Your task to perform on an android device: Search for seafood restaurants on Google Maps Image 0: 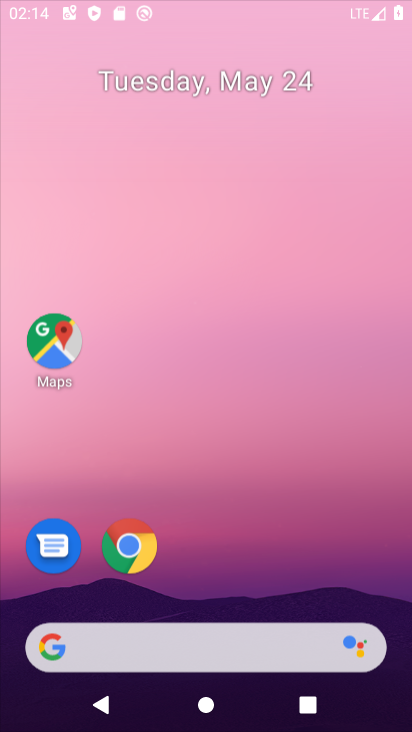
Step 0: drag from (231, 543) to (335, 21)
Your task to perform on an android device: Search for seafood restaurants on Google Maps Image 1: 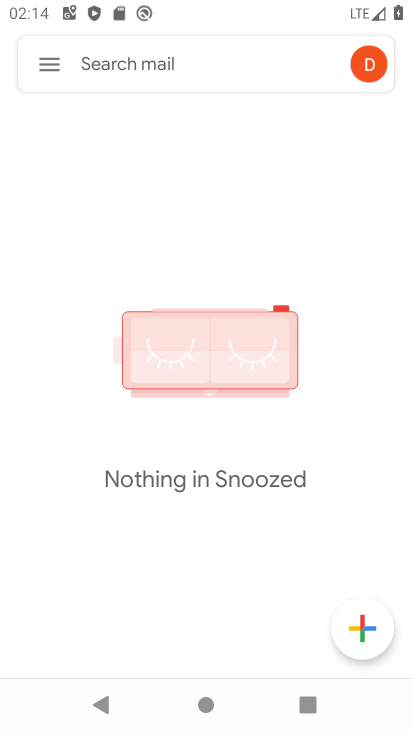
Step 1: press home button
Your task to perform on an android device: Search for seafood restaurants on Google Maps Image 2: 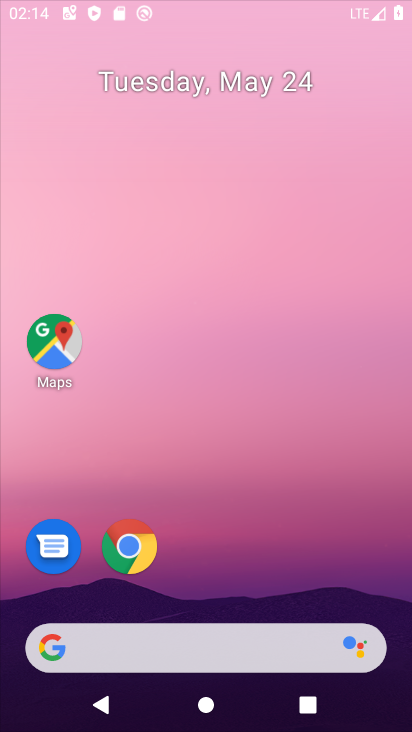
Step 2: drag from (212, 537) to (348, 23)
Your task to perform on an android device: Search for seafood restaurants on Google Maps Image 3: 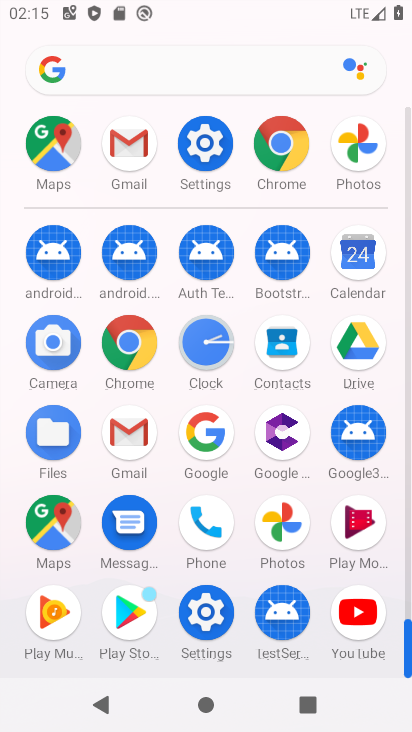
Step 3: click (57, 506)
Your task to perform on an android device: Search for seafood restaurants on Google Maps Image 4: 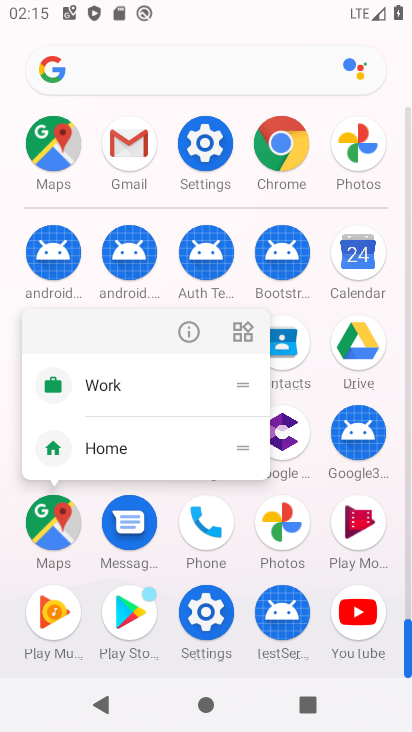
Step 4: click (179, 324)
Your task to perform on an android device: Search for seafood restaurants on Google Maps Image 5: 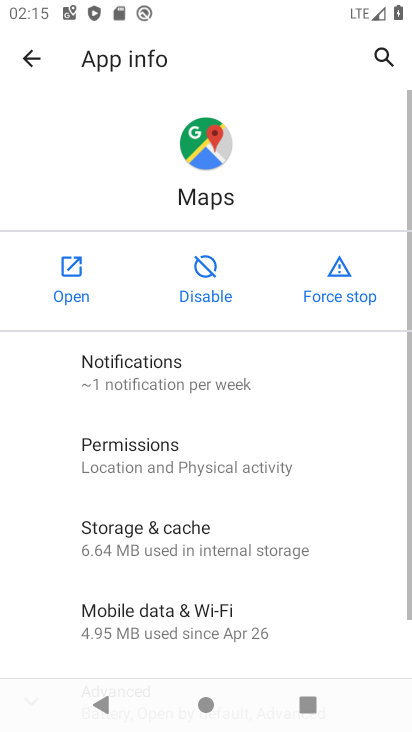
Step 5: click (93, 290)
Your task to perform on an android device: Search for seafood restaurants on Google Maps Image 6: 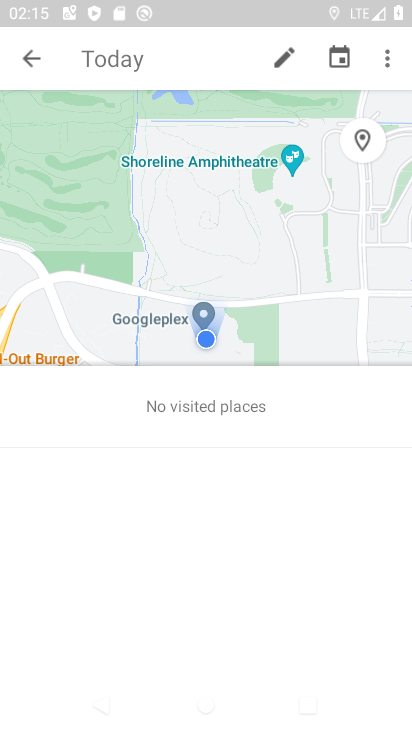
Step 6: press back button
Your task to perform on an android device: Search for seafood restaurants on Google Maps Image 7: 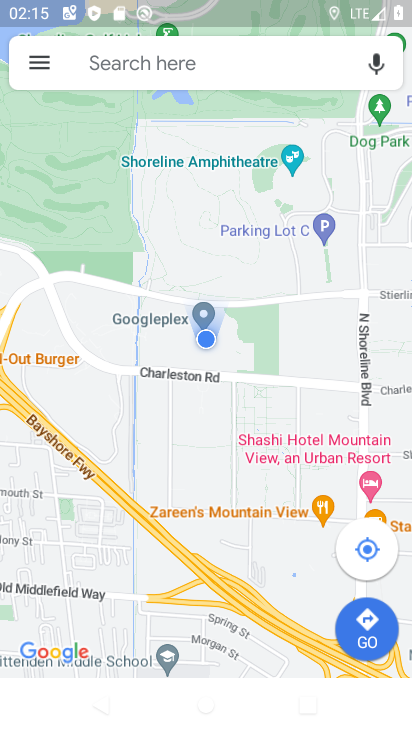
Step 7: click (173, 62)
Your task to perform on an android device: Search for seafood restaurants on Google Maps Image 8: 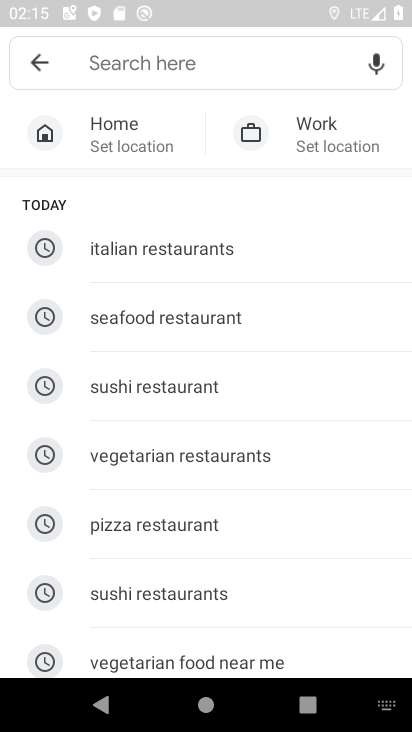
Step 8: click (140, 311)
Your task to perform on an android device: Search for seafood restaurants on Google Maps Image 9: 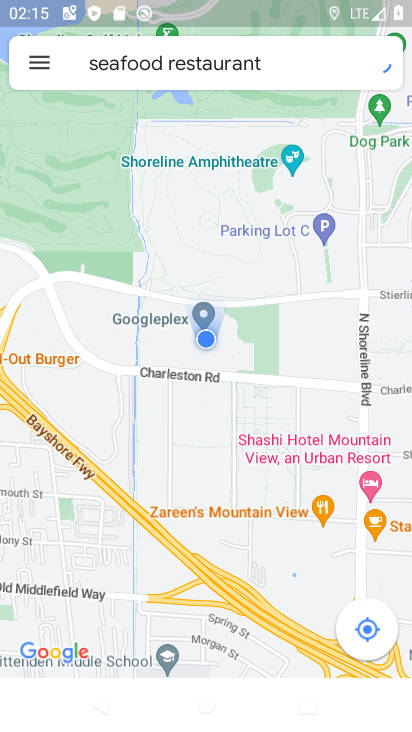
Step 9: task complete